Your task to perform on an android device: Go to Google Image 0: 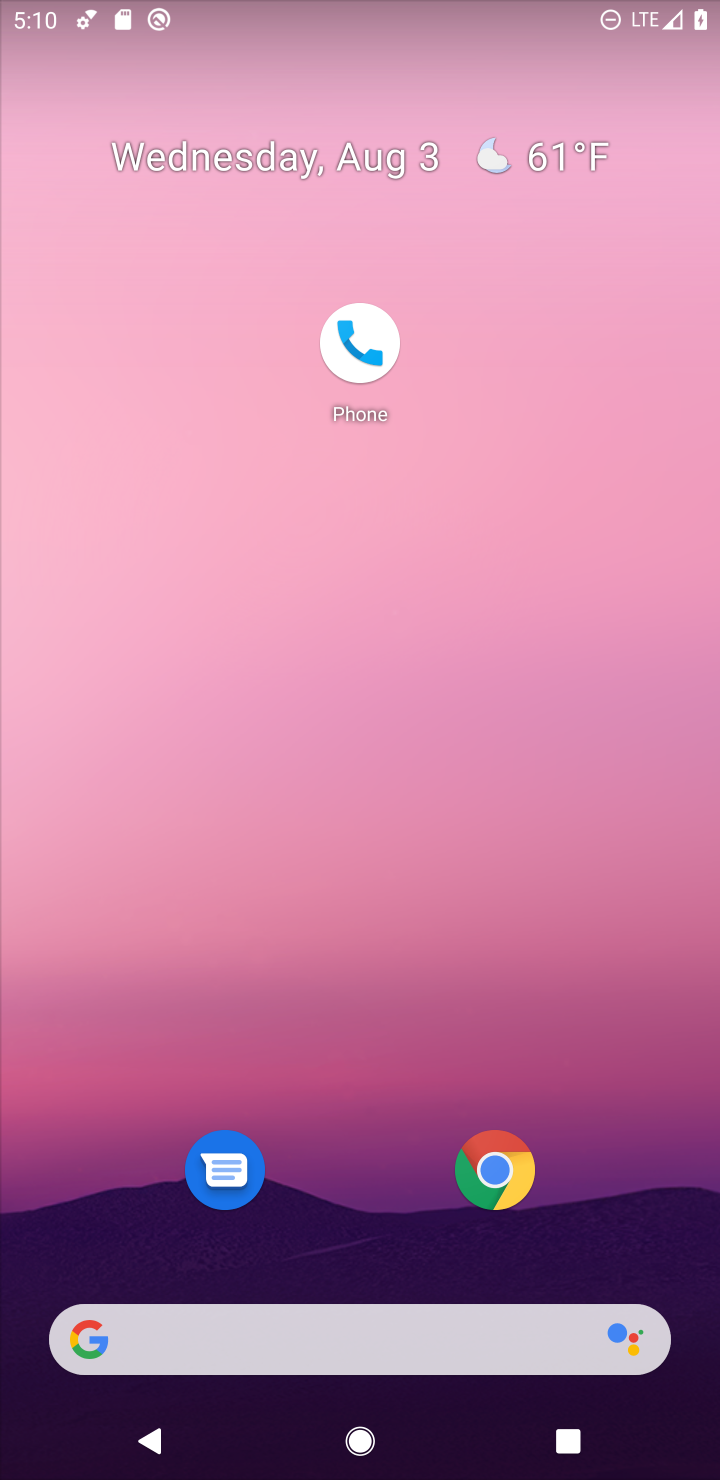
Step 0: click (306, 1332)
Your task to perform on an android device: Go to Google Image 1: 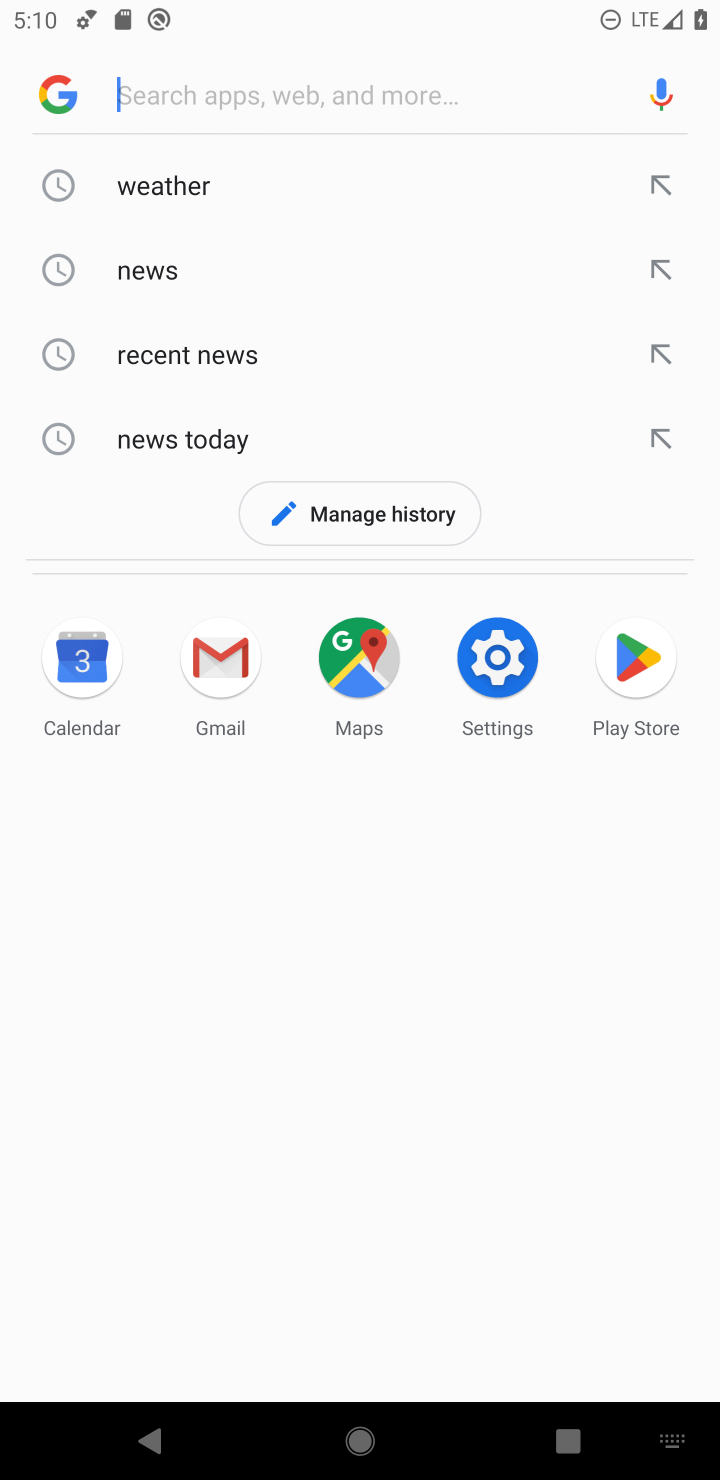
Step 1: task complete